Your task to perform on an android device: uninstall "Nova Launcher" Image 0: 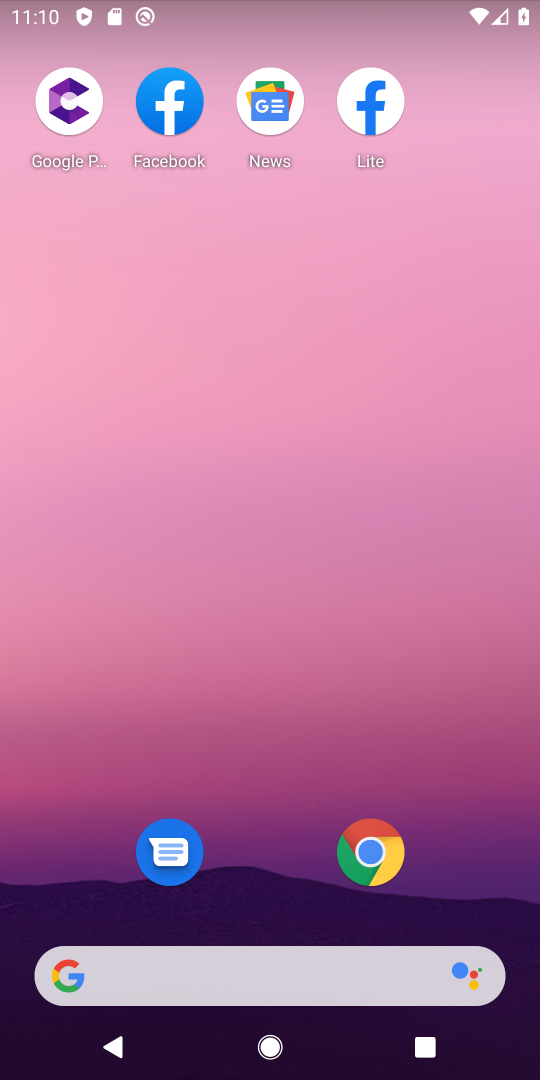
Step 0: drag from (252, 873) to (247, 188)
Your task to perform on an android device: uninstall "Nova Launcher" Image 1: 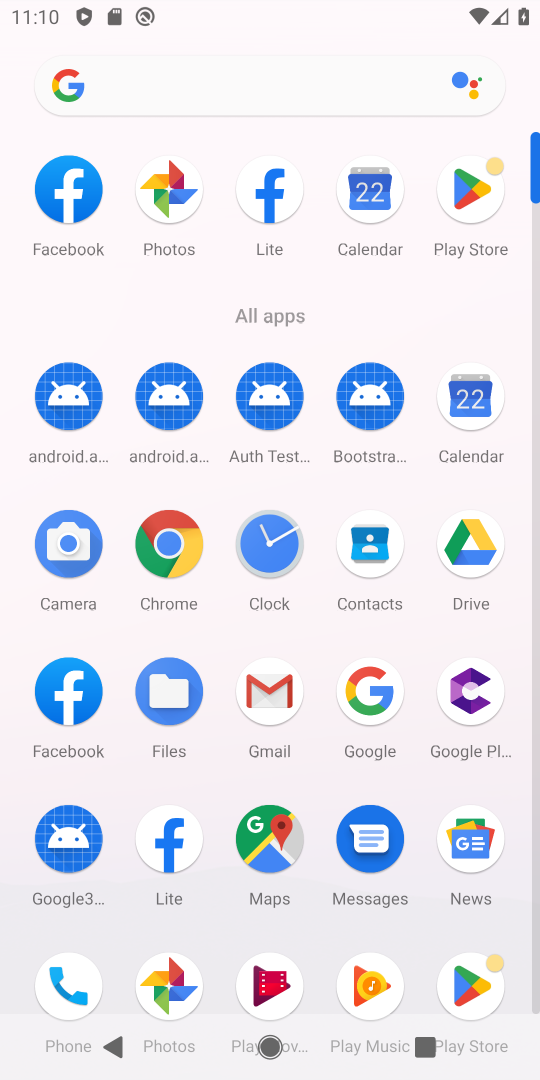
Step 1: click (463, 202)
Your task to perform on an android device: uninstall "Nova Launcher" Image 2: 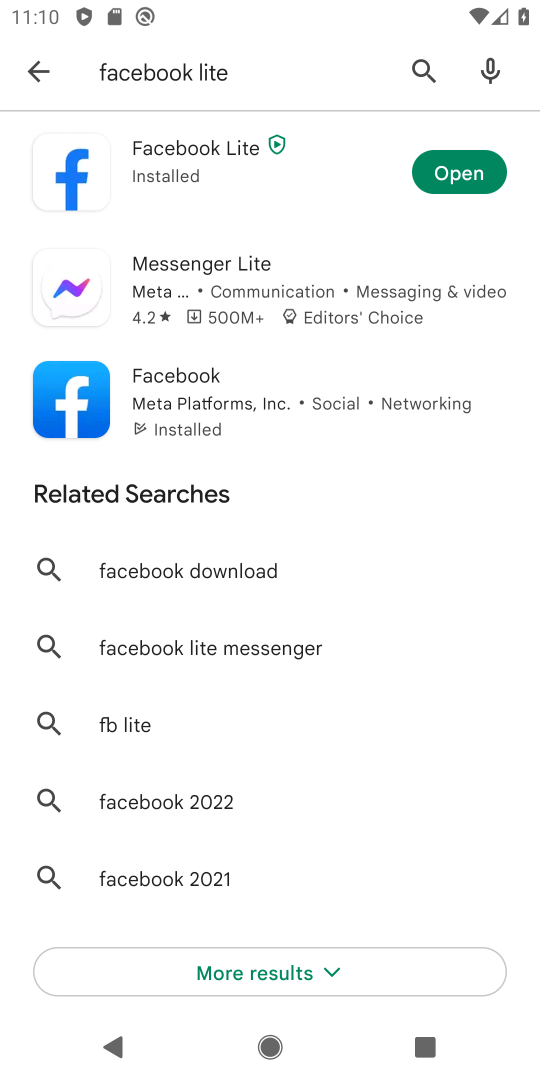
Step 2: click (227, 82)
Your task to perform on an android device: uninstall "Nova Launcher" Image 3: 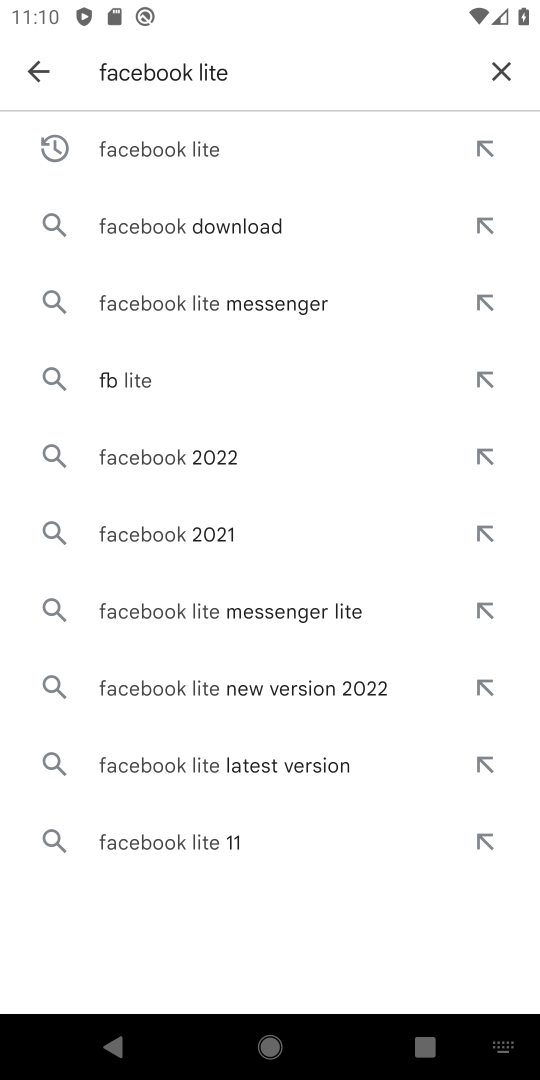
Step 3: click (500, 65)
Your task to perform on an android device: uninstall "Nova Launcher" Image 4: 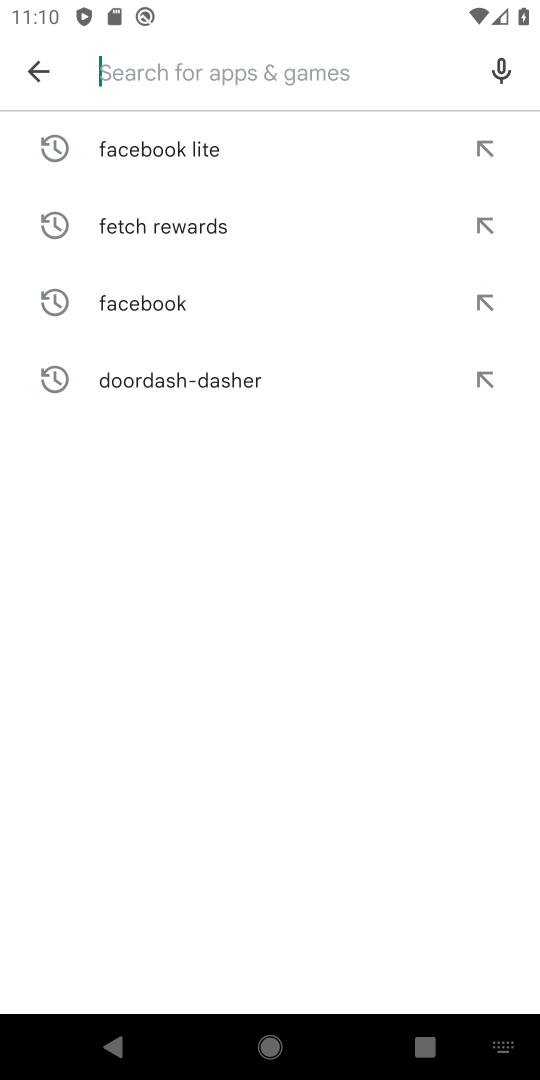
Step 4: type "nova launcher"
Your task to perform on an android device: uninstall "Nova Launcher" Image 5: 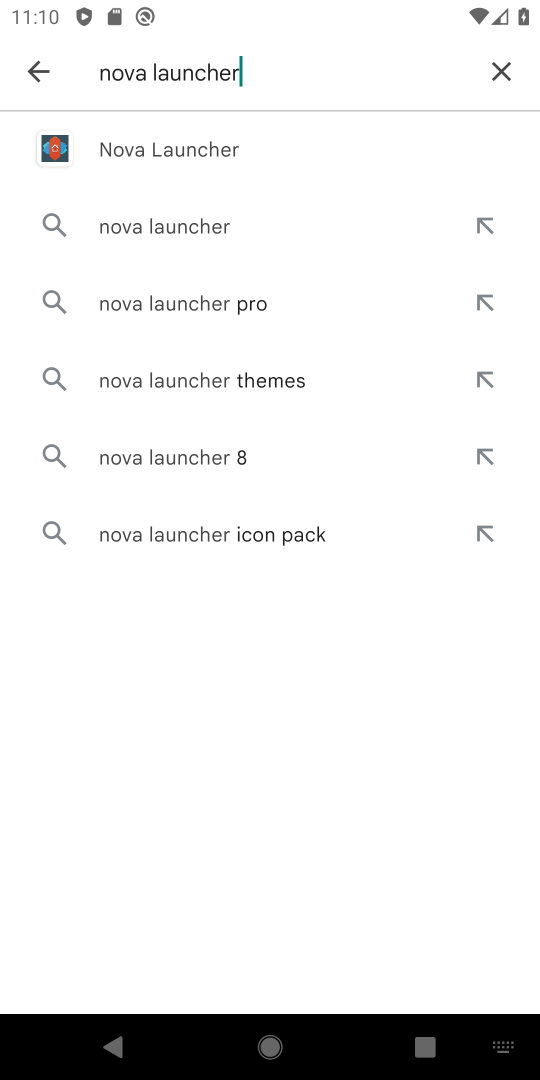
Step 5: click (218, 152)
Your task to perform on an android device: uninstall "Nova Launcher" Image 6: 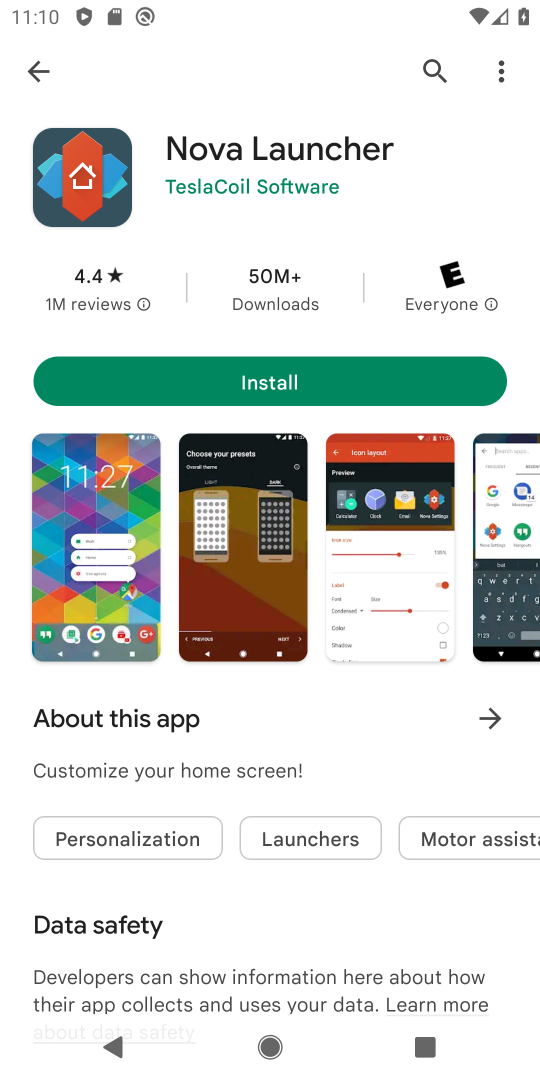
Step 6: task complete